Your task to perform on an android device: toggle sleep mode Image 0: 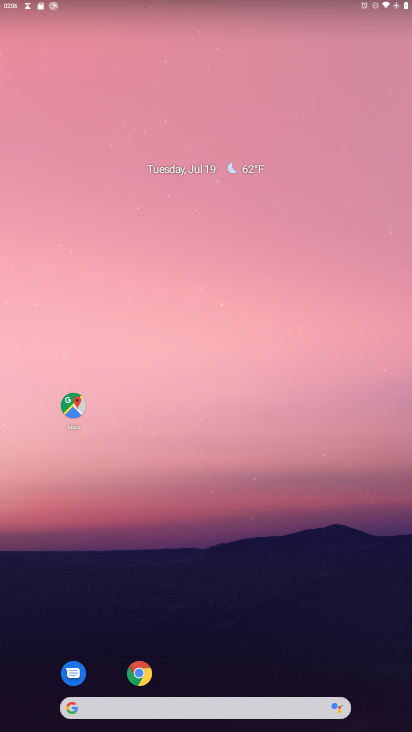
Step 0: drag from (212, 673) to (248, 368)
Your task to perform on an android device: toggle sleep mode Image 1: 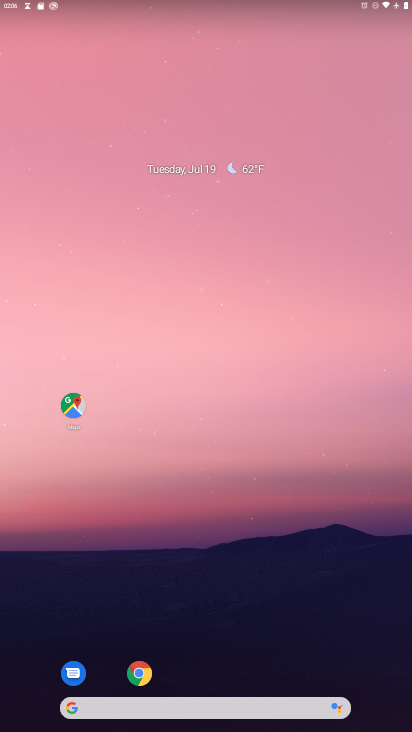
Step 1: drag from (256, 665) to (302, 109)
Your task to perform on an android device: toggle sleep mode Image 2: 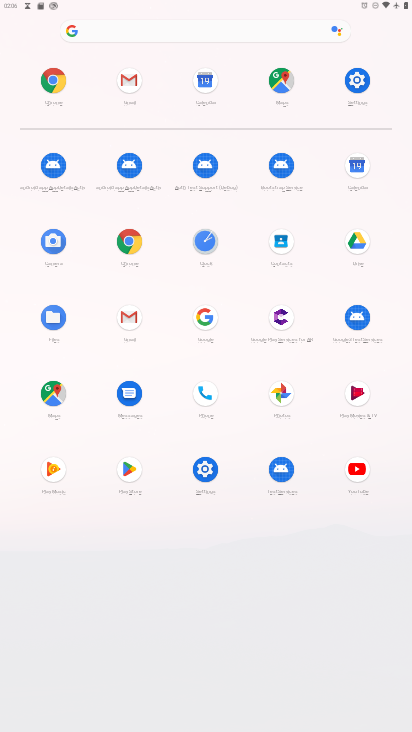
Step 2: click (353, 78)
Your task to perform on an android device: toggle sleep mode Image 3: 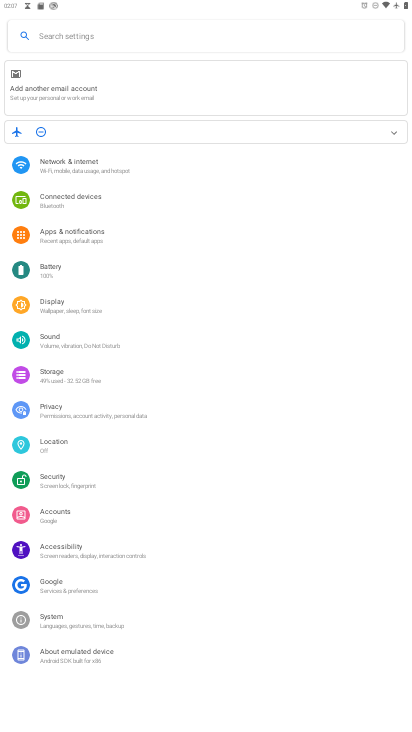
Step 3: task complete